Your task to perform on an android device: delete browsing data in the chrome app Image 0: 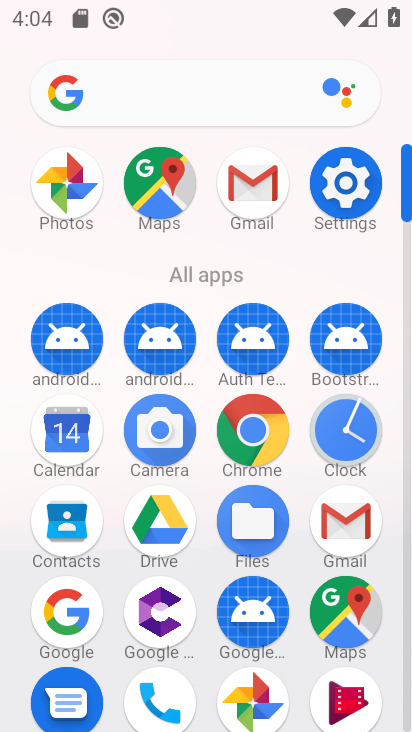
Step 0: press home button
Your task to perform on an android device: delete browsing data in the chrome app Image 1: 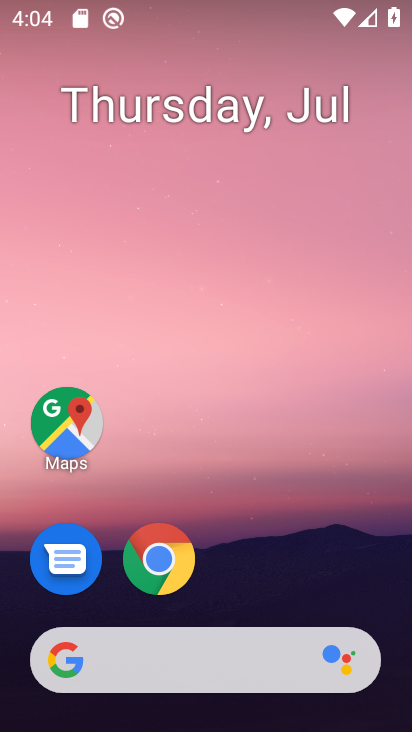
Step 1: drag from (230, 638) to (221, 194)
Your task to perform on an android device: delete browsing data in the chrome app Image 2: 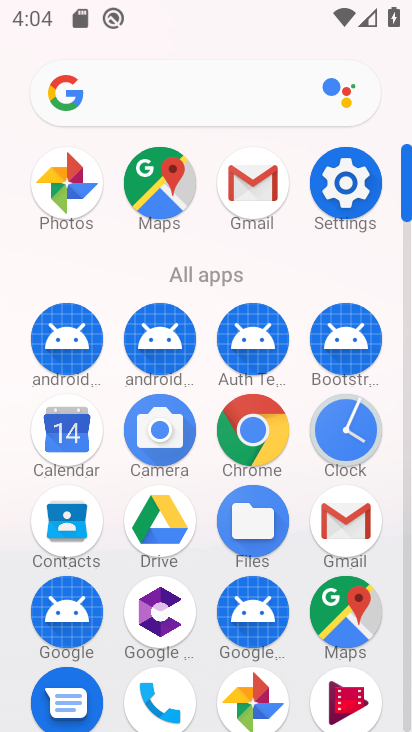
Step 2: click (257, 444)
Your task to perform on an android device: delete browsing data in the chrome app Image 3: 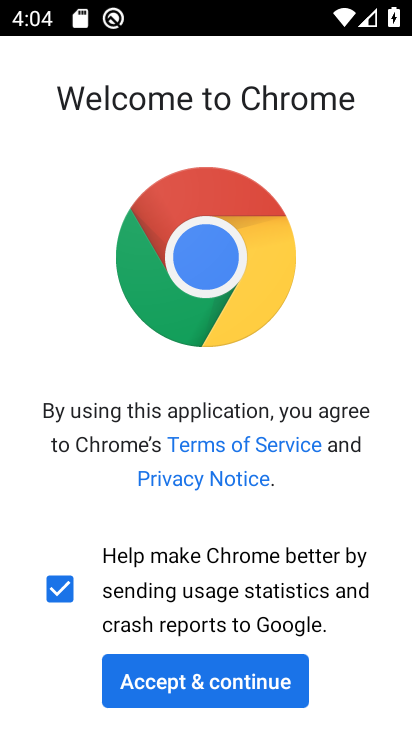
Step 3: click (212, 677)
Your task to perform on an android device: delete browsing data in the chrome app Image 4: 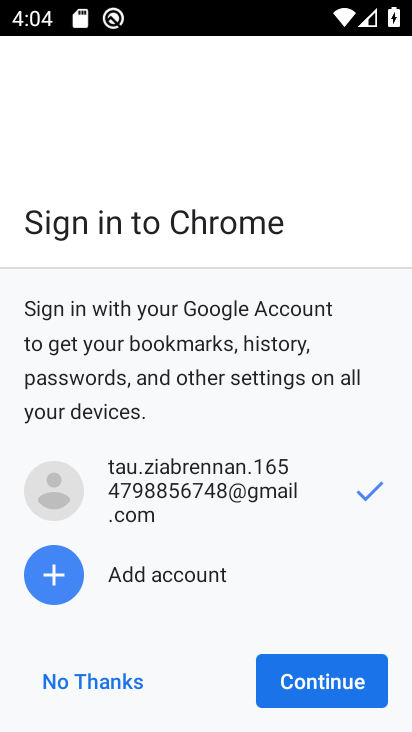
Step 4: click (120, 693)
Your task to perform on an android device: delete browsing data in the chrome app Image 5: 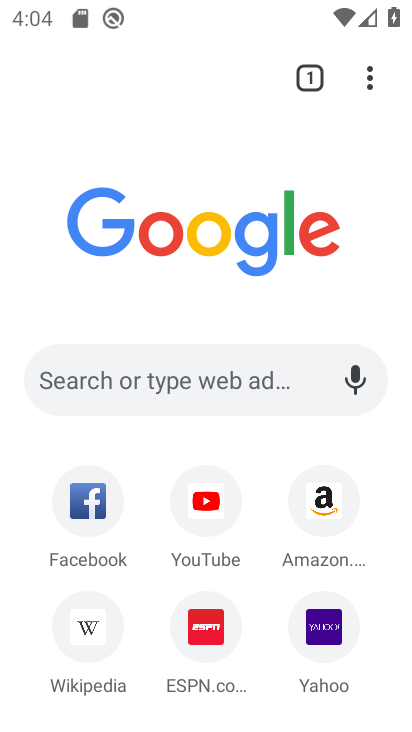
Step 5: click (369, 78)
Your task to perform on an android device: delete browsing data in the chrome app Image 6: 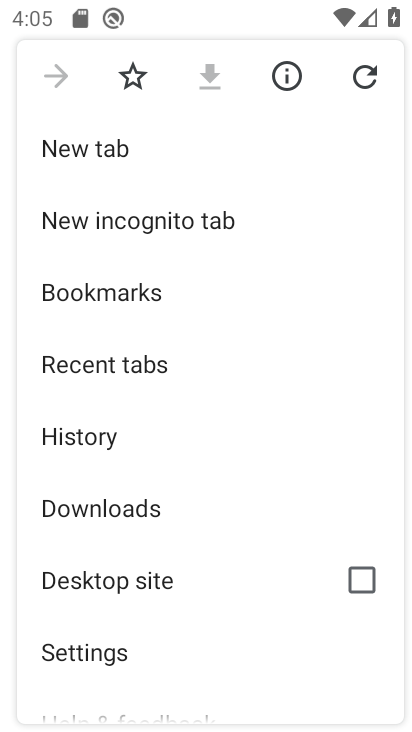
Step 6: click (79, 447)
Your task to perform on an android device: delete browsing data in the chrome app Image 7: 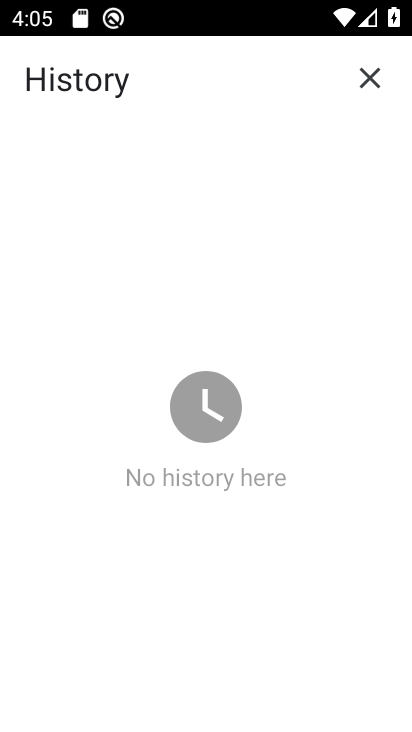
Step 7: task complete